Your task to perform on an android device: Go to Google Image 0: 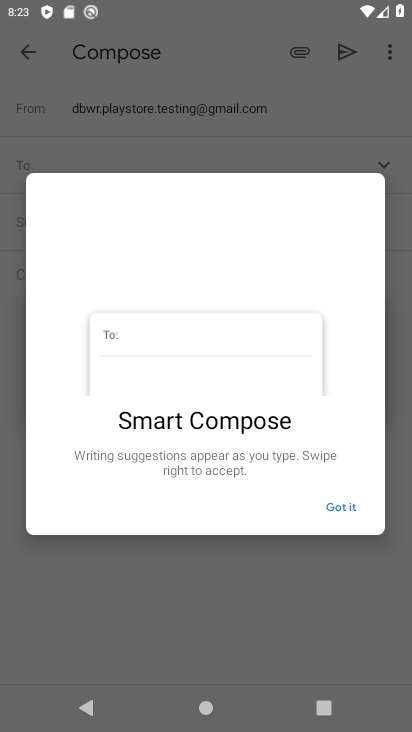
Step 0: press home button
Your task to perform on an android device: Go to Google Image 1: 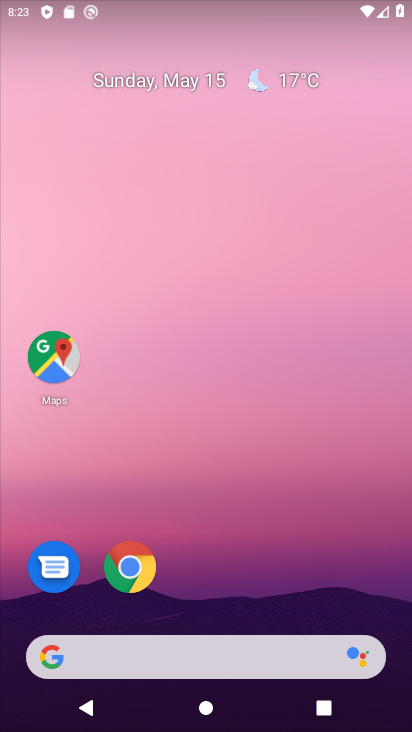
Step 1: drag from (191, 643) to (53, 17)
Your task to perform on an android device: Go to Google Image 2: 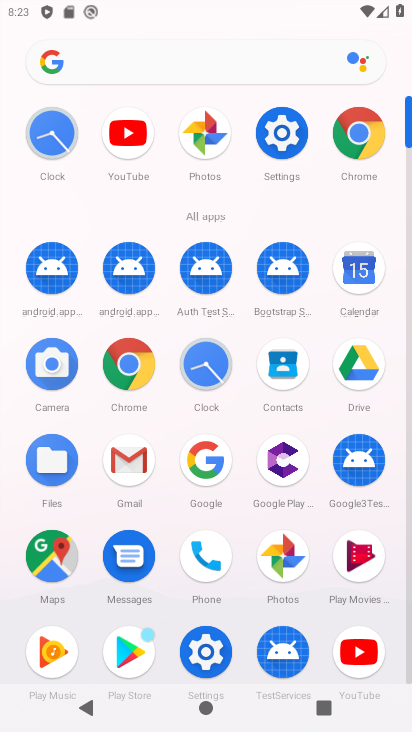
Step 2: click (216, 457)
Your task to perform on an android device: Go to Google Image 3: 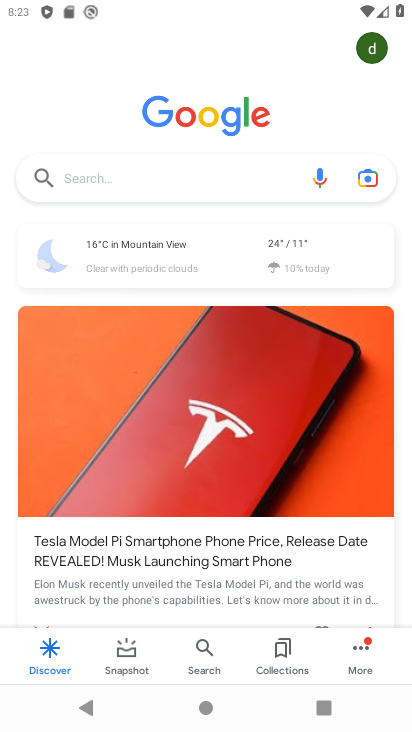
Step 3: task complete